Your task to perform on an android device: toggle wifi Image 0: 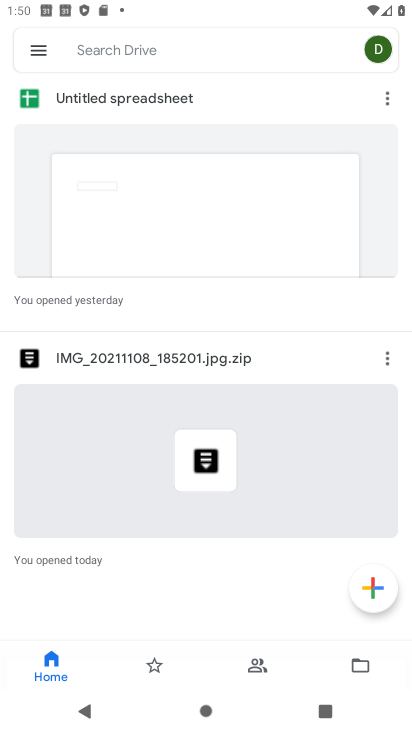
Step 0: task complete